Your task to perform on an android device: open chrome privacy settings Image 0: 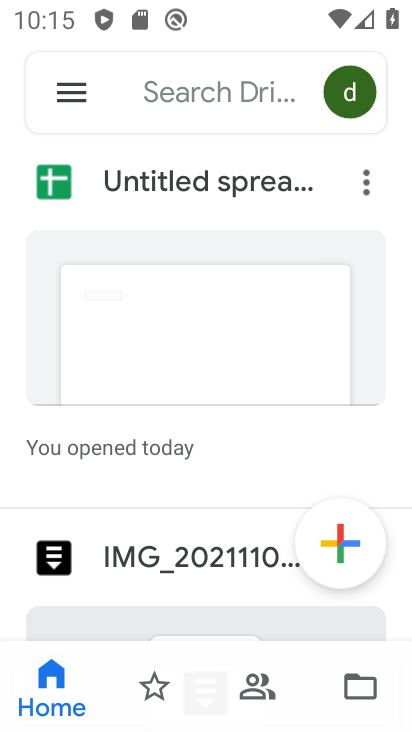
Step 0: press home button
Your task to perform on an android device: open chrome privacy settings Image 1: 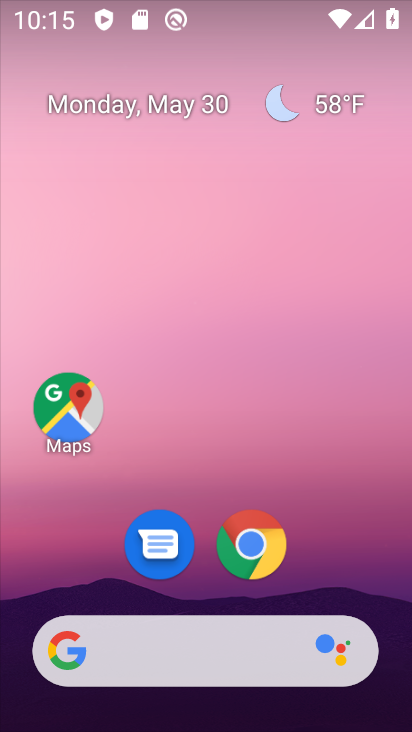
Step 1: click (265, 548)
Your task to perform on an android device: open chrome privacy settings Image 2: 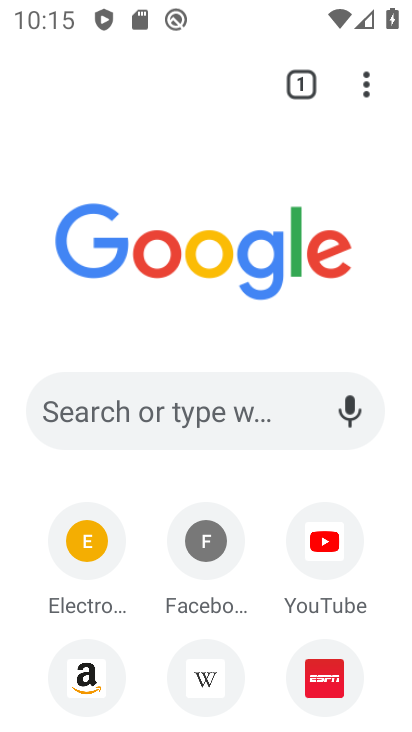
Step 2: click (370, 94)
Your task to perform on an android device: open chrome privacy settings Image 3: 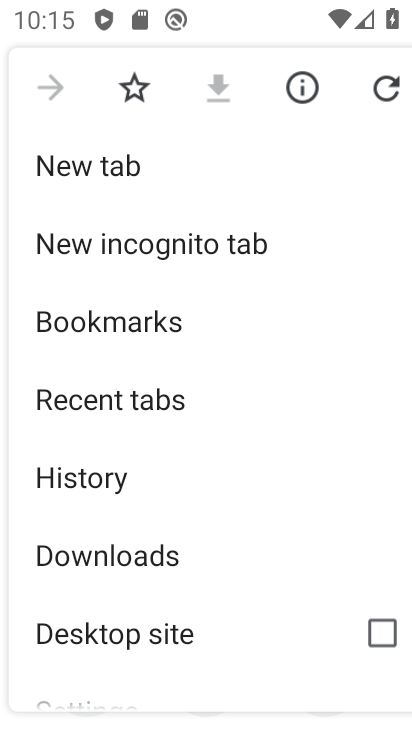
Step 3: drag from (190, 650) to (254, 95)
Your task to perform on an android device: open chrome privacy settings Image 4: 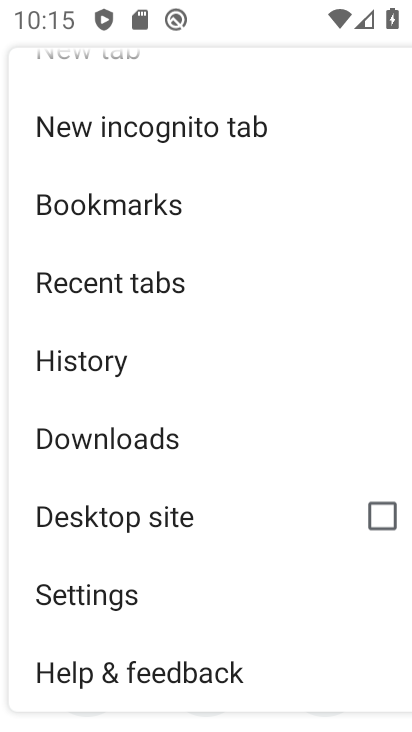
Step 4: click (139, 583)
Your task to perform on an android device: open chrome privacy settings Image 5: 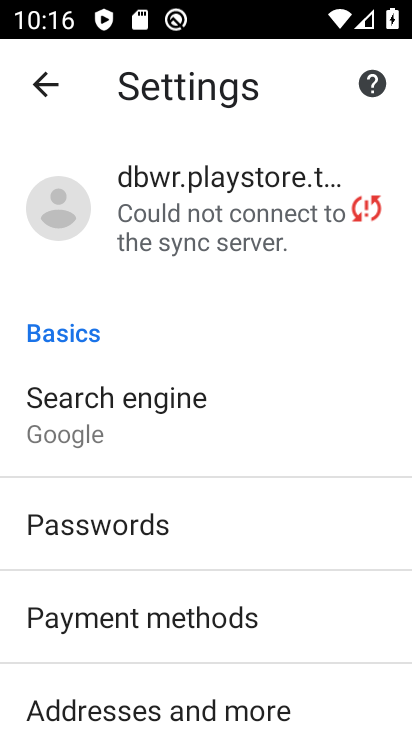
Step 5: drag from (262, 619) to (253, 140)
Your task to perform on an android device: open chrome privacy settings Image 6: 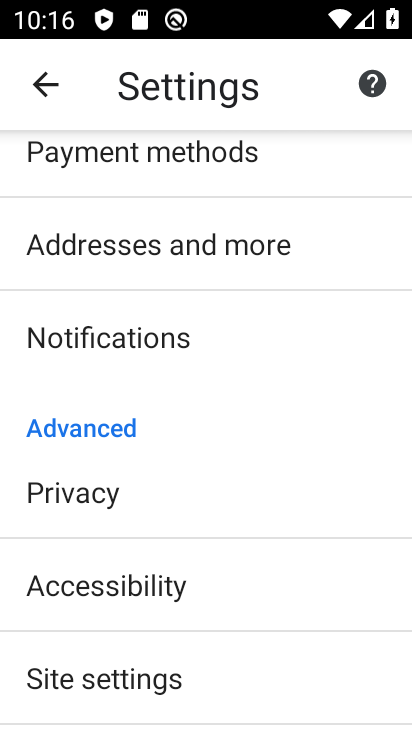
Step 6: click (231, 504)
Your task to perform on an android device: open chrome privacy settings Image 7: 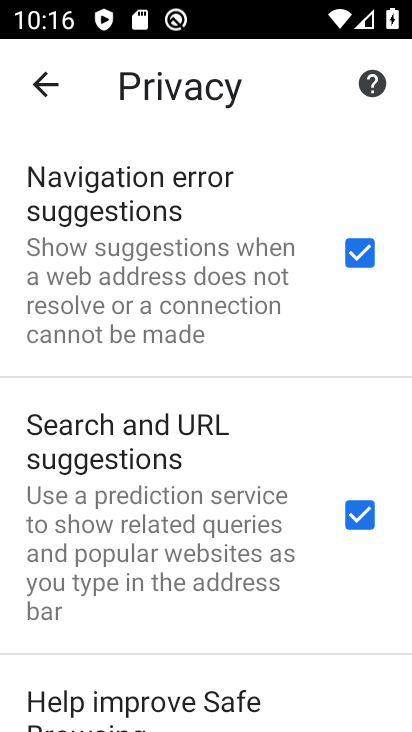
Step 7: task complete